Your task to perform on an android device: choose inbox layout in the gmail app Image 0: 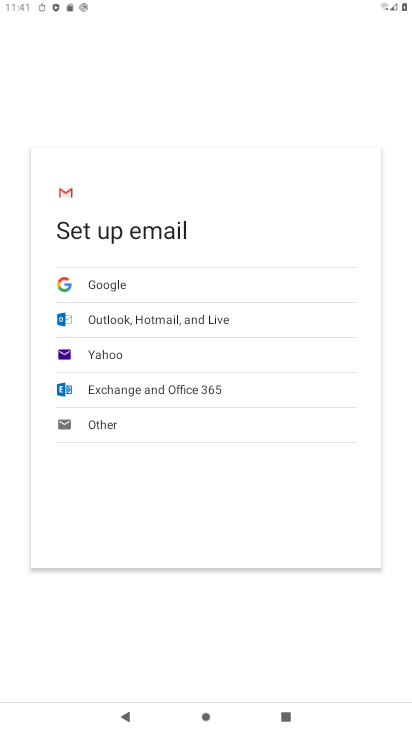
Step 0: press home button
Your task to perform on an android device: choose inbox layout in the gmail app Image 1: 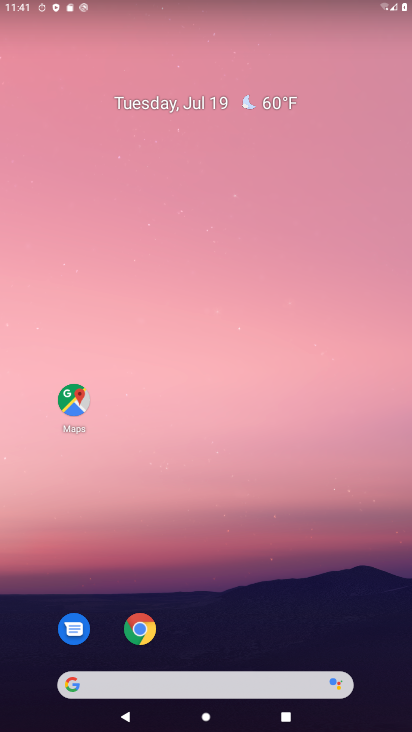
Step 1: drag from (295, 600) to (309, 235)
Your task to perform on an android device: choose inbox layout in the gmail app Image 2: 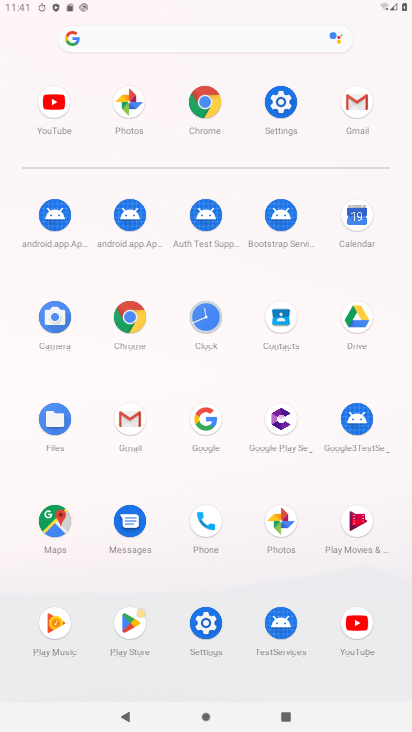
Step 2: click (363, 116)
Your task to perform on an android device: choose inbox layout in the gmail app Image 3: 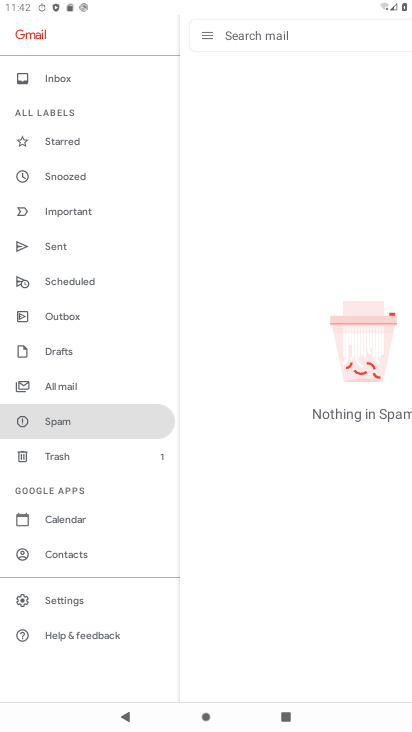
Step 3: click (64, 596)
Your task to perform on an android device: choose inbox layout in the gmail app Image 4: 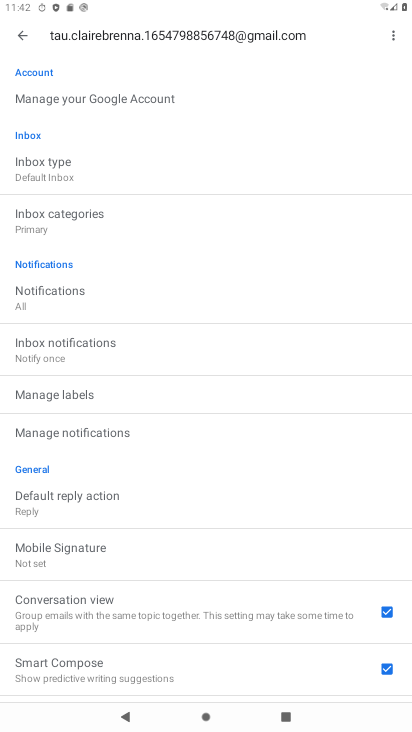
Step 4: click (79, 174)
Your task to perform on an android device: choose inbox layout in the gmail app Image 5: 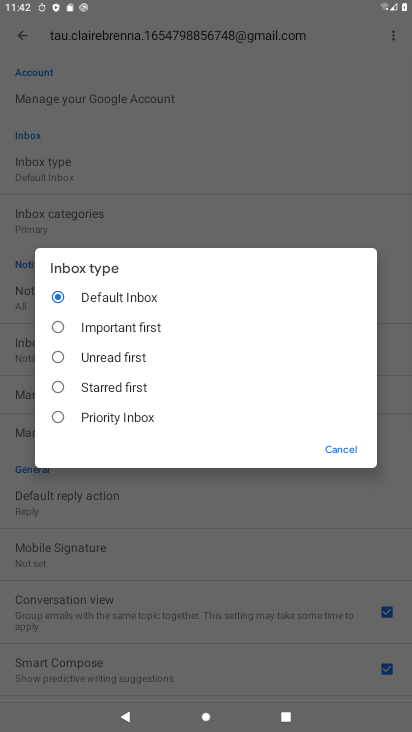
Step 5: click (112, 325)
Your task to perform on an android device: choose inbox layout in the gmail app Image 6: 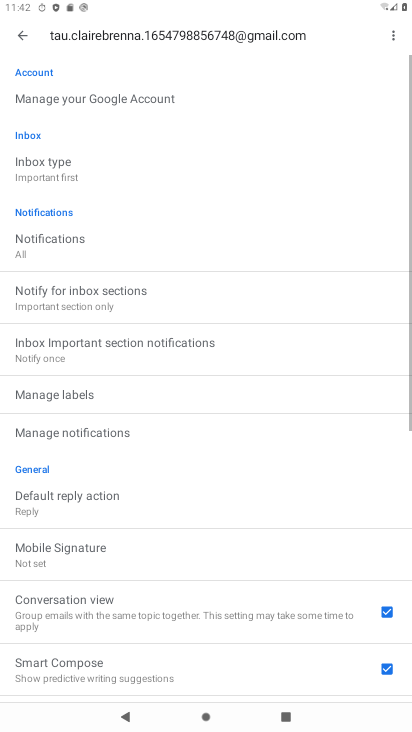
Step 6: task complete